Your task to perform on an android device: turn smart compose on in the gmail app Image 0: 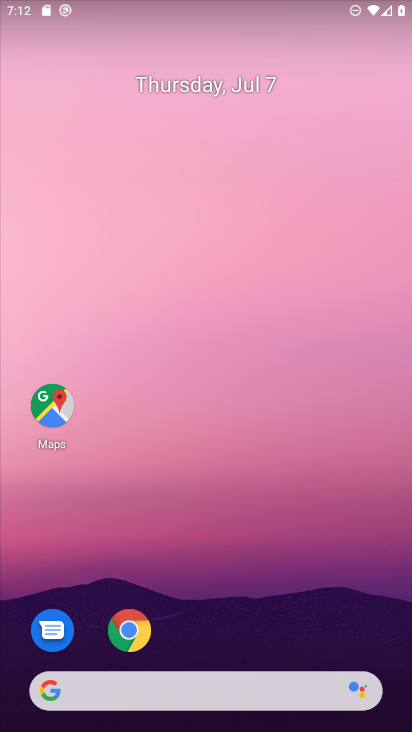
Step 0: drag from (214, 559) to (117, 150)
Your task to perform on an android device: turn smart compose on in the gmail app Image 1: 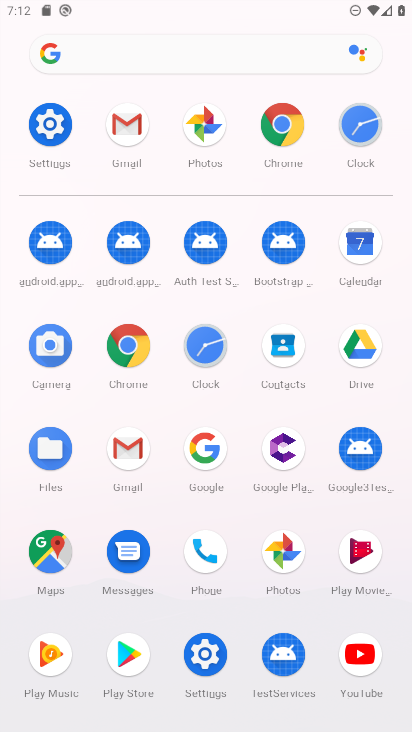
Step 1: click (122, 122)
Your task to perform on an android device: turn smart compose on in the gmail app Image 2: 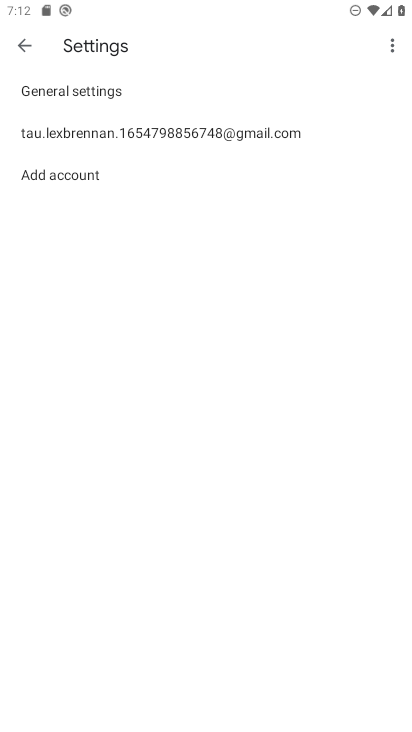
Step 2: click (101, 130)
Your task to perform on an android device: turn smart compose on in the gmail app Image 3: 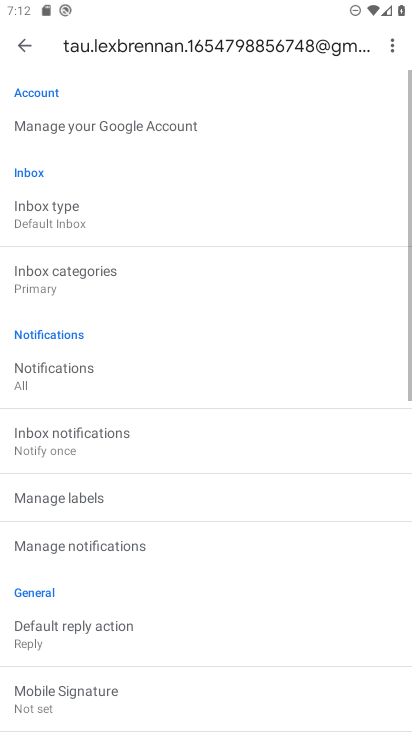
Step 3: task complete